Your task to perform on an android device: toggle notifications settings in the gmail app Image 0: 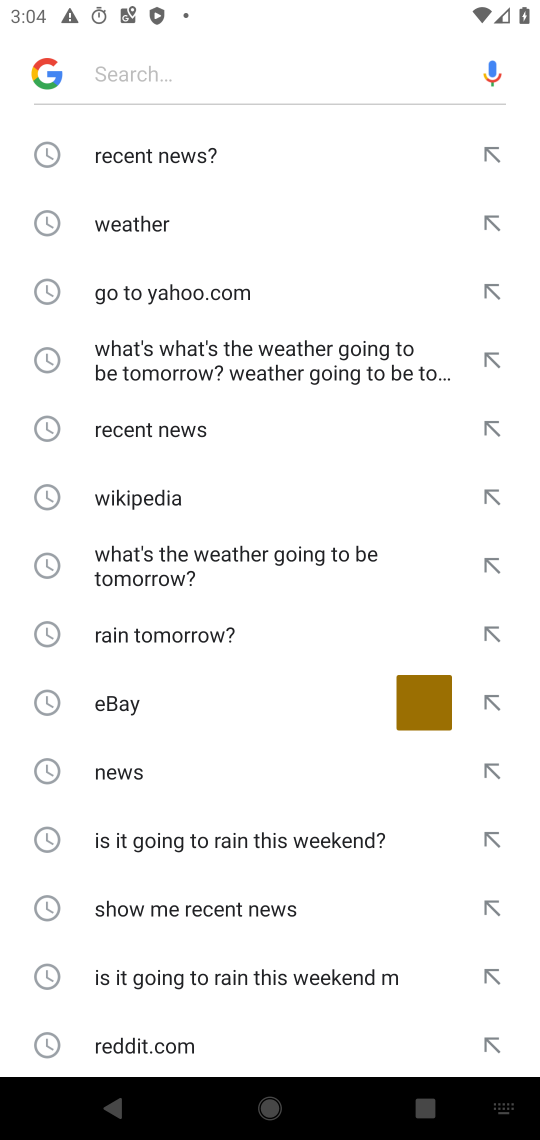
Step 0: press home button
Your task to perform on an android device: toggle notifications settings in the gmail app Image 1: 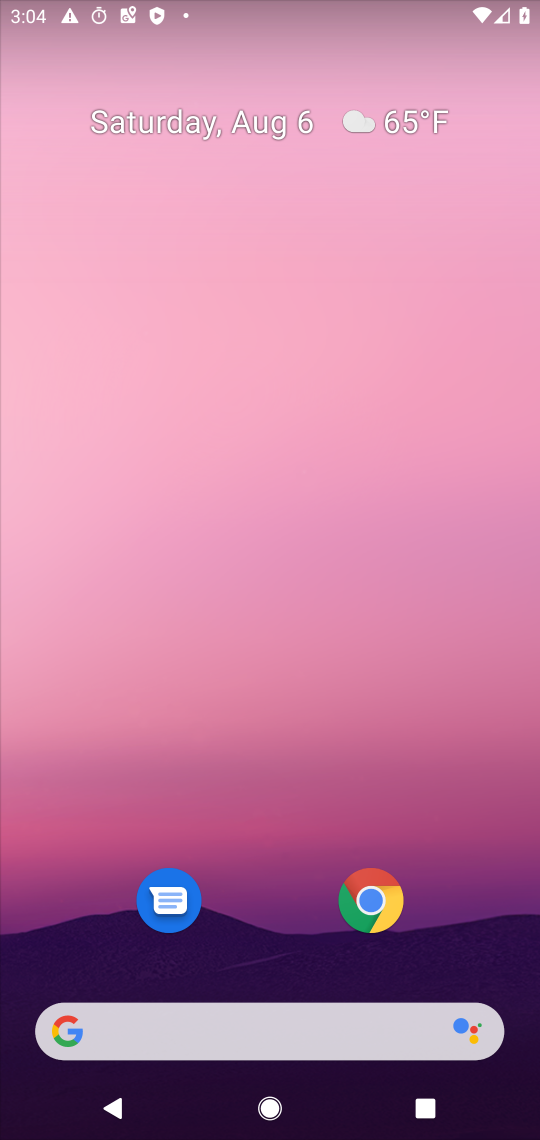
Step 1: drag from (269, 345) to (537, 542)
Your task to perform on an android device: toggle notifications settings in the gmail app Image 2: 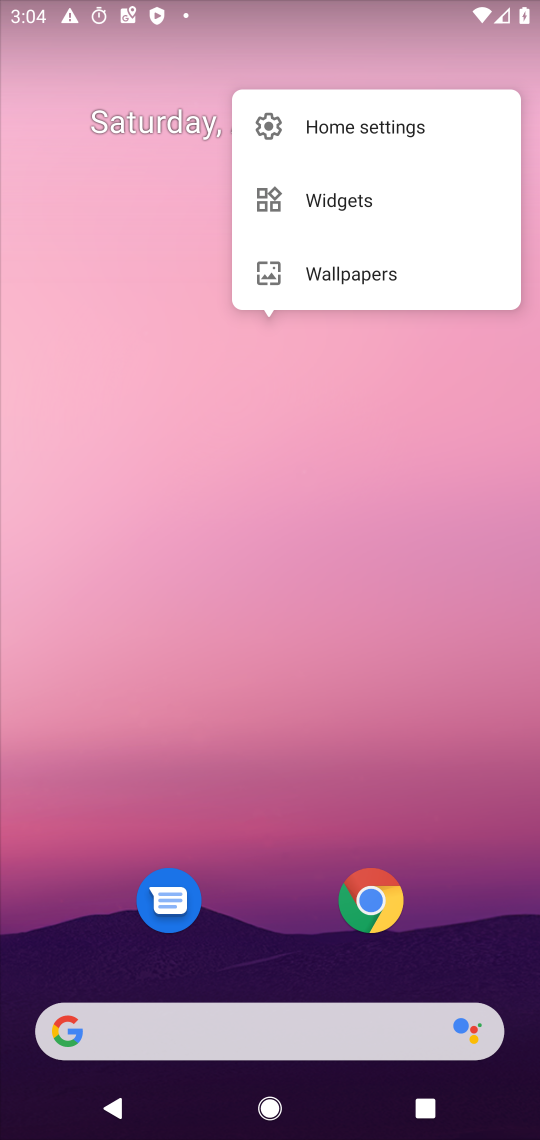
Step 2: drag from (257, 932) to (254, 101)
Your task to perform on an android device: toggle notifications settings in the gmail app Image 3: 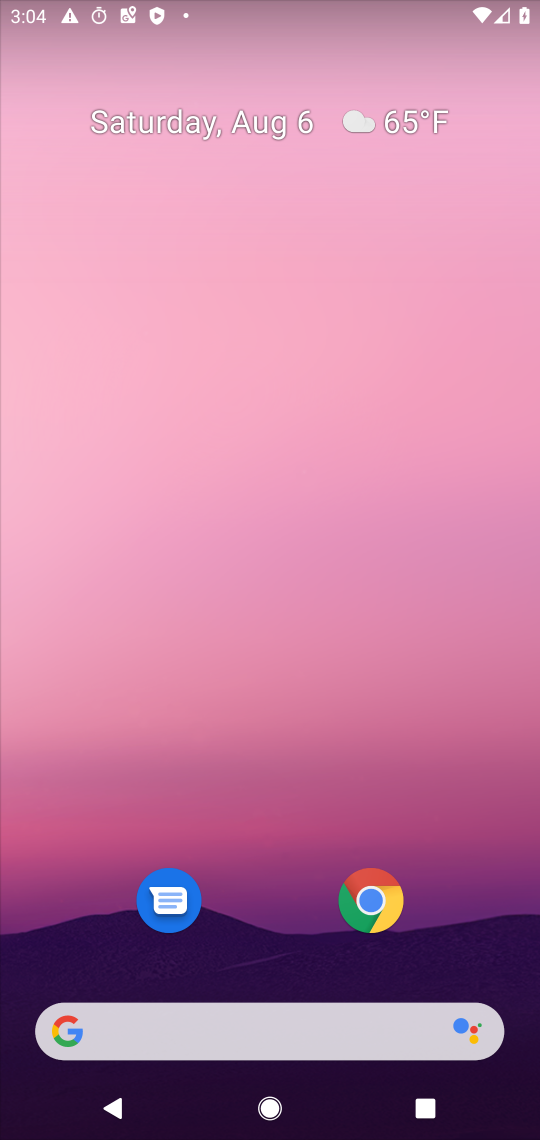
Step 3: drag from (258, 915) to (475, 1076)
Your task to perform on an android device: toggle notifications settings in the gmail app Image 4: 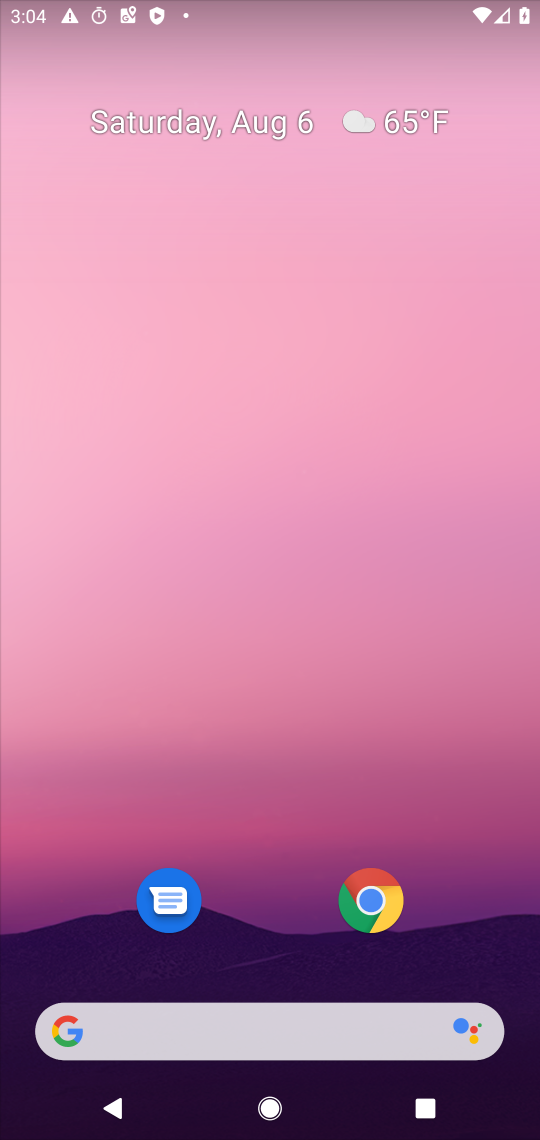
Step 4: drag from (232, 894) to (274, 34)
Your task to perform on an android device: toggle notifications settings in the gmail app Image 5: 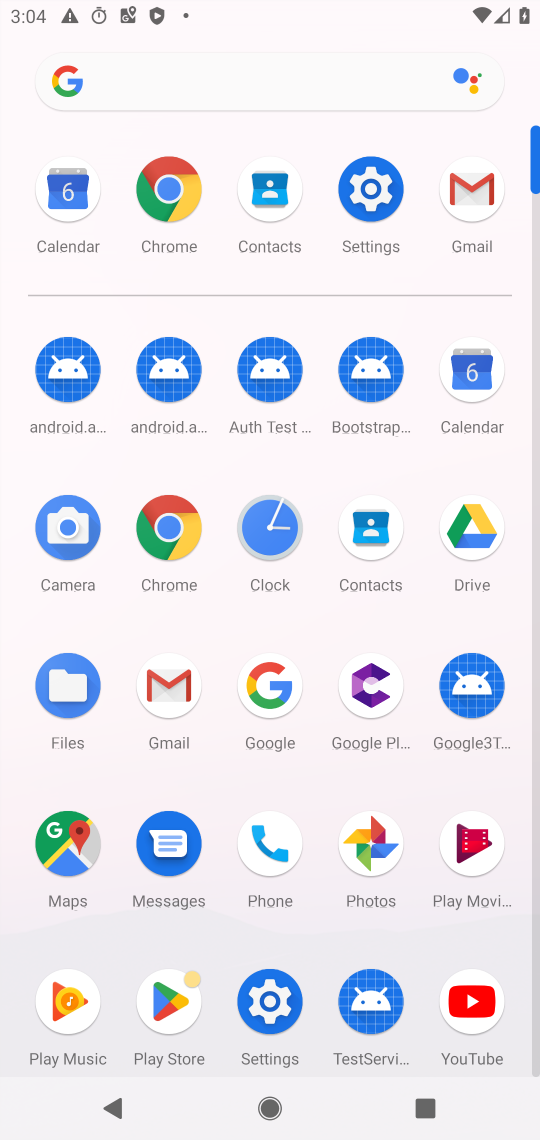
Step 5: click (163, 687)
Your task to perform on an android device: toggle notifications settings in the gmail app Image 6: 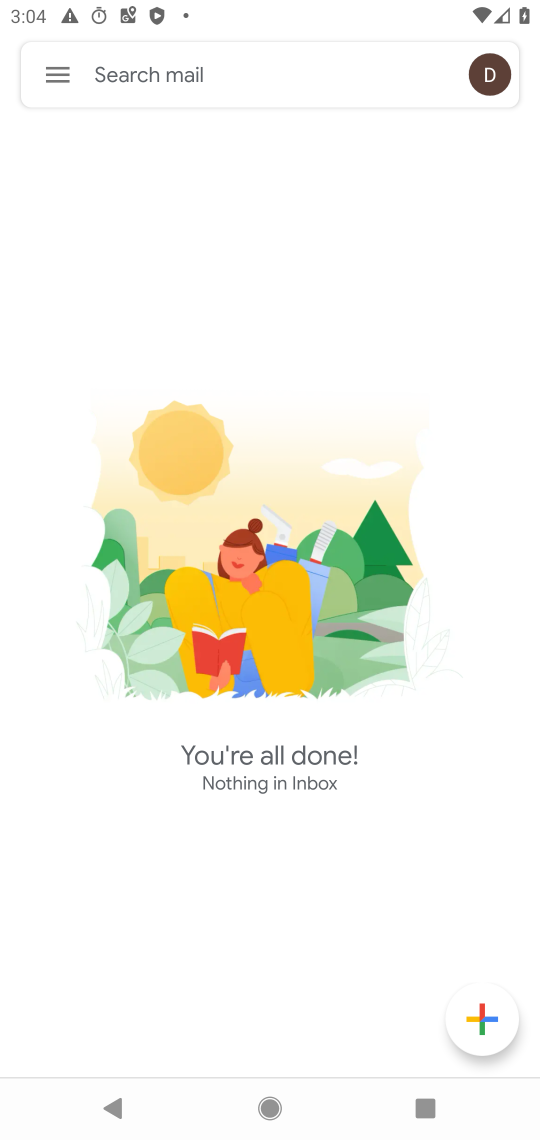
Step 6: click (45, 76)
Your task to perform on an android device: toggle notifications settings in the gmail app Image 7: 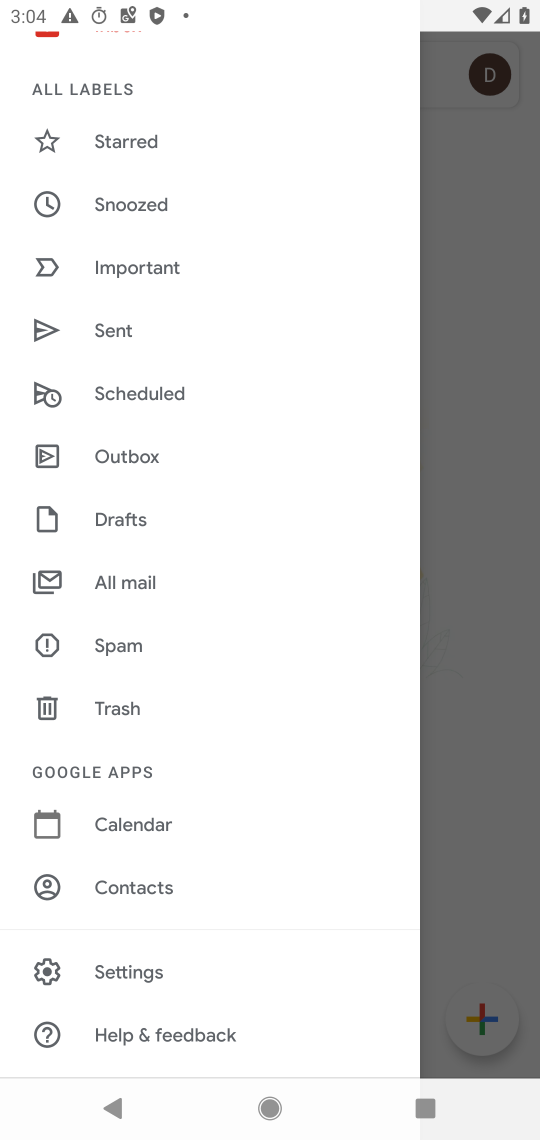
Step 7: click (138, 974)
Your task to perform on an android device: toggle notifications settings in the gmail app Image 8: 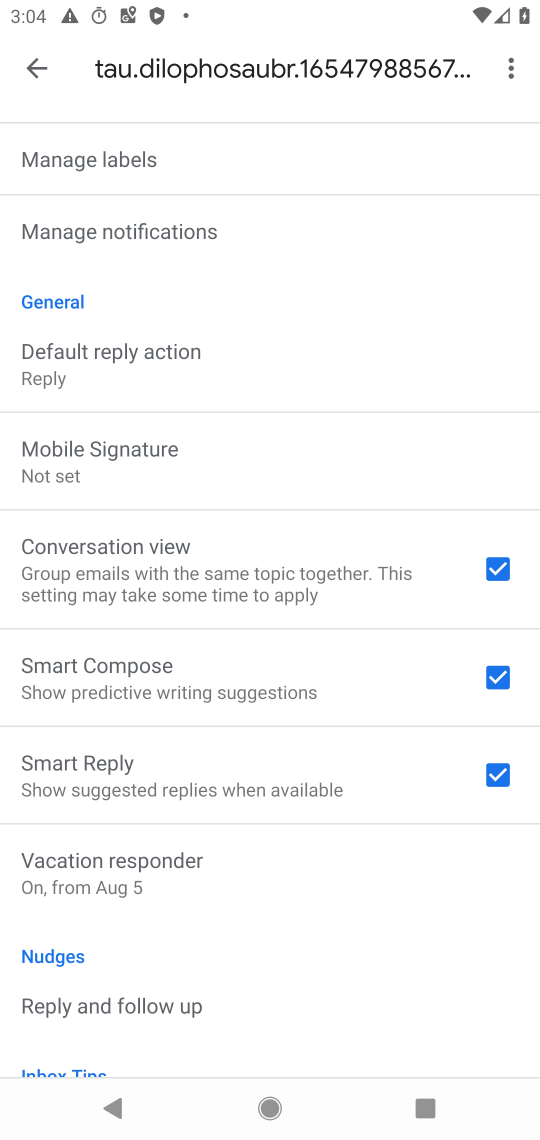
Step 8: click (114, 232)
Your task to perform on an android device: toggle notifications settings in the gmail app Image 9: 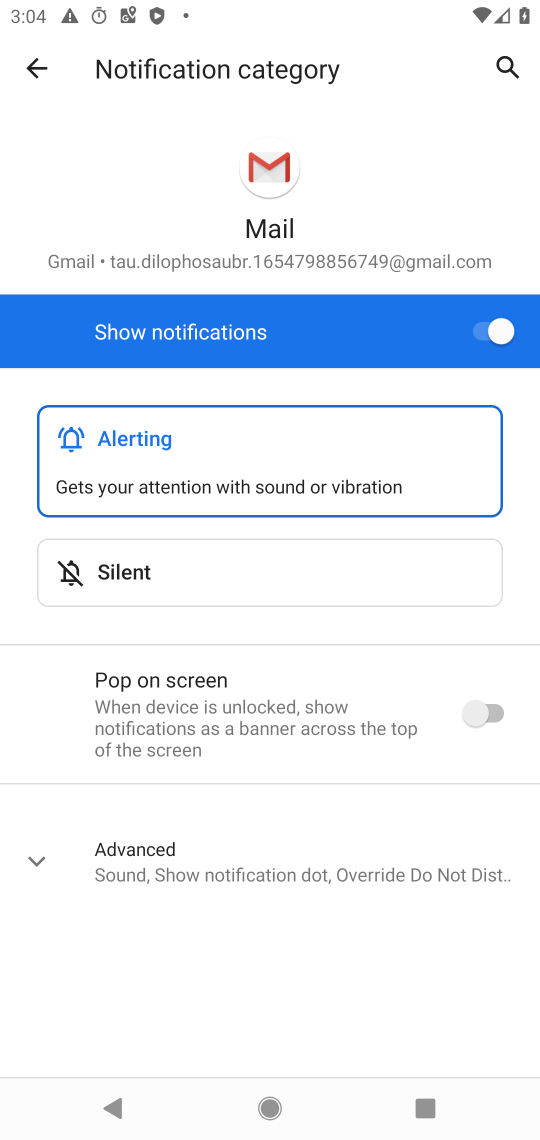
Step 9: click (487, 332)
Your task to perform on an android device: toggle notifications settings in the gmail app Image 10: 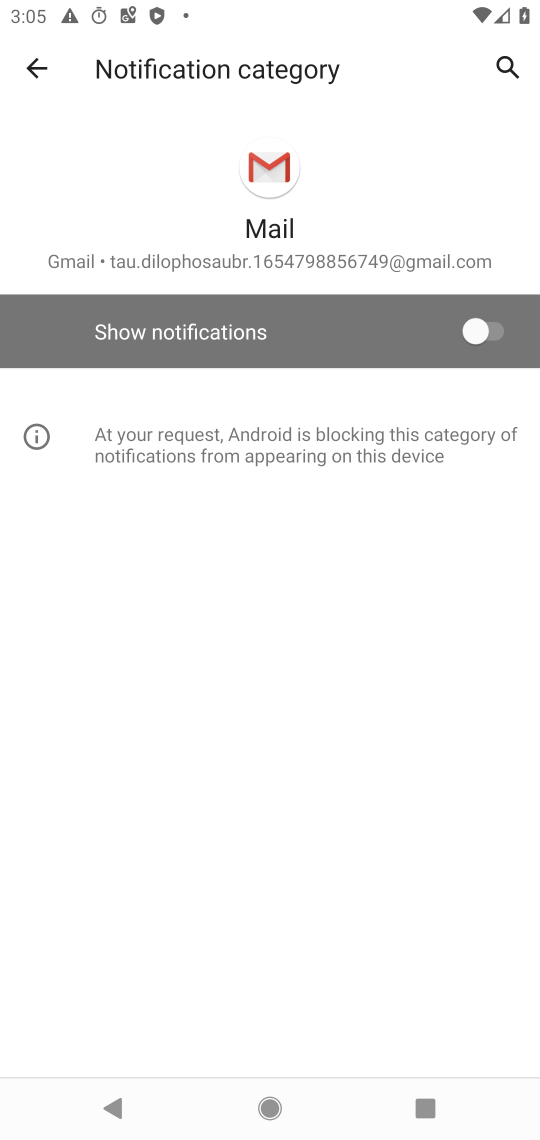
Step 10: task complete